Your task to perform on an android device: Open Google Image 0: 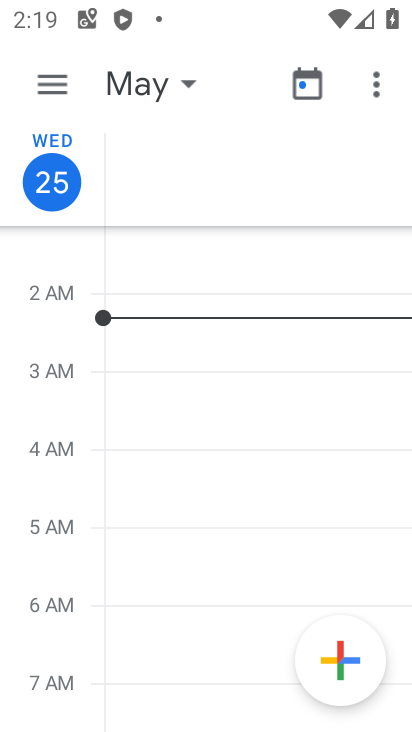
Step 0: press home button
Your task to perform on an android device: Open Google Image 1: 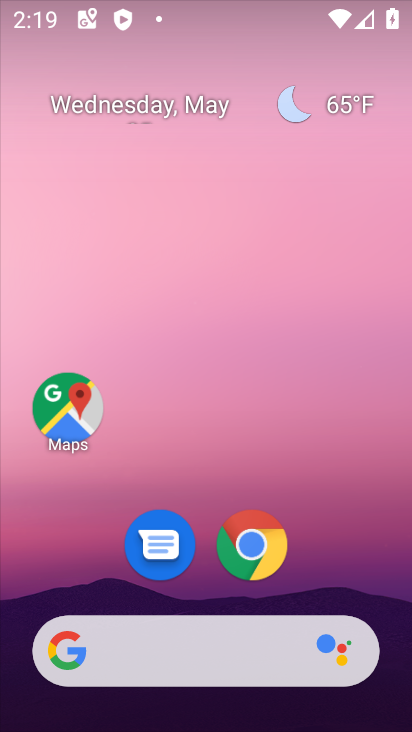
Step 1: click (84, 423)
Your task to perform on an android device: Open Google Image 2: 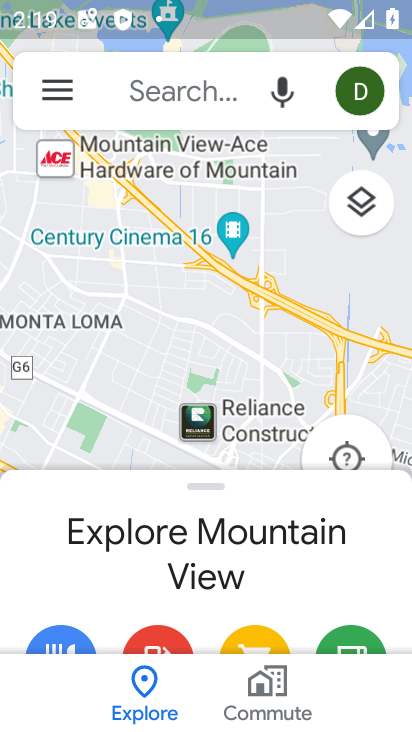
Step 2: task complete